Your task to perform on an android device: open app "Google Chat" Image 0: 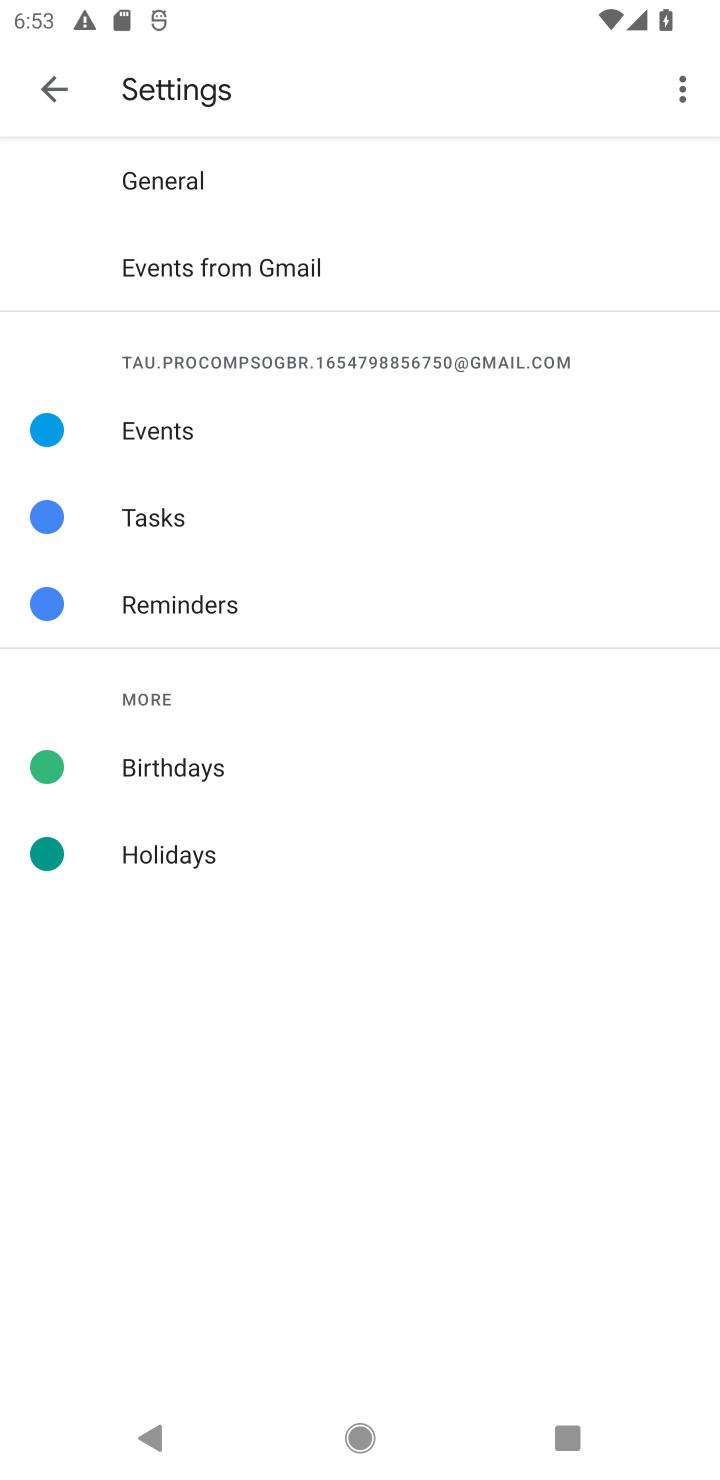
Step 0: press home button
Your task to perform on an android device: open app "Google Chat" Image 1: 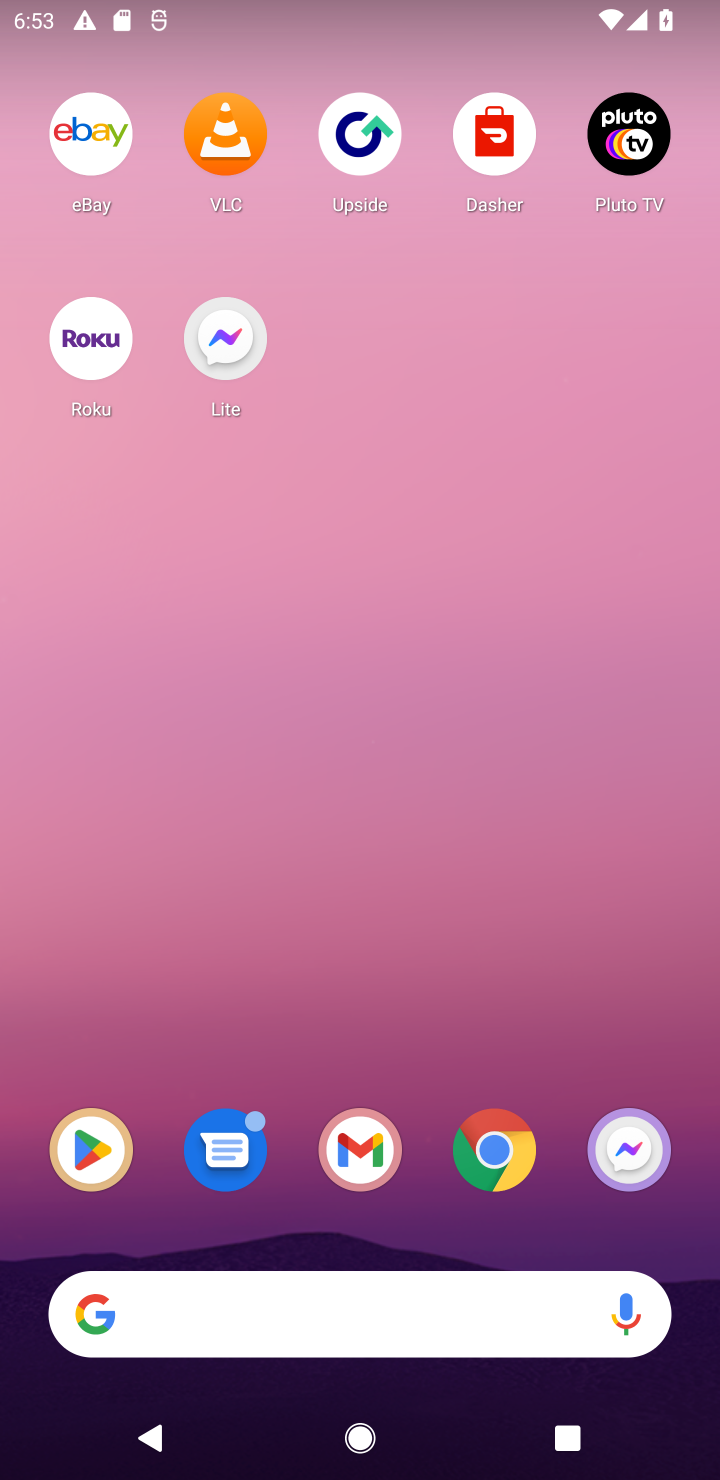
Step 1: drag from (411, 1254) to (483, 17)
Your task to perform on an android device: open app "Google Chat" Image 2: 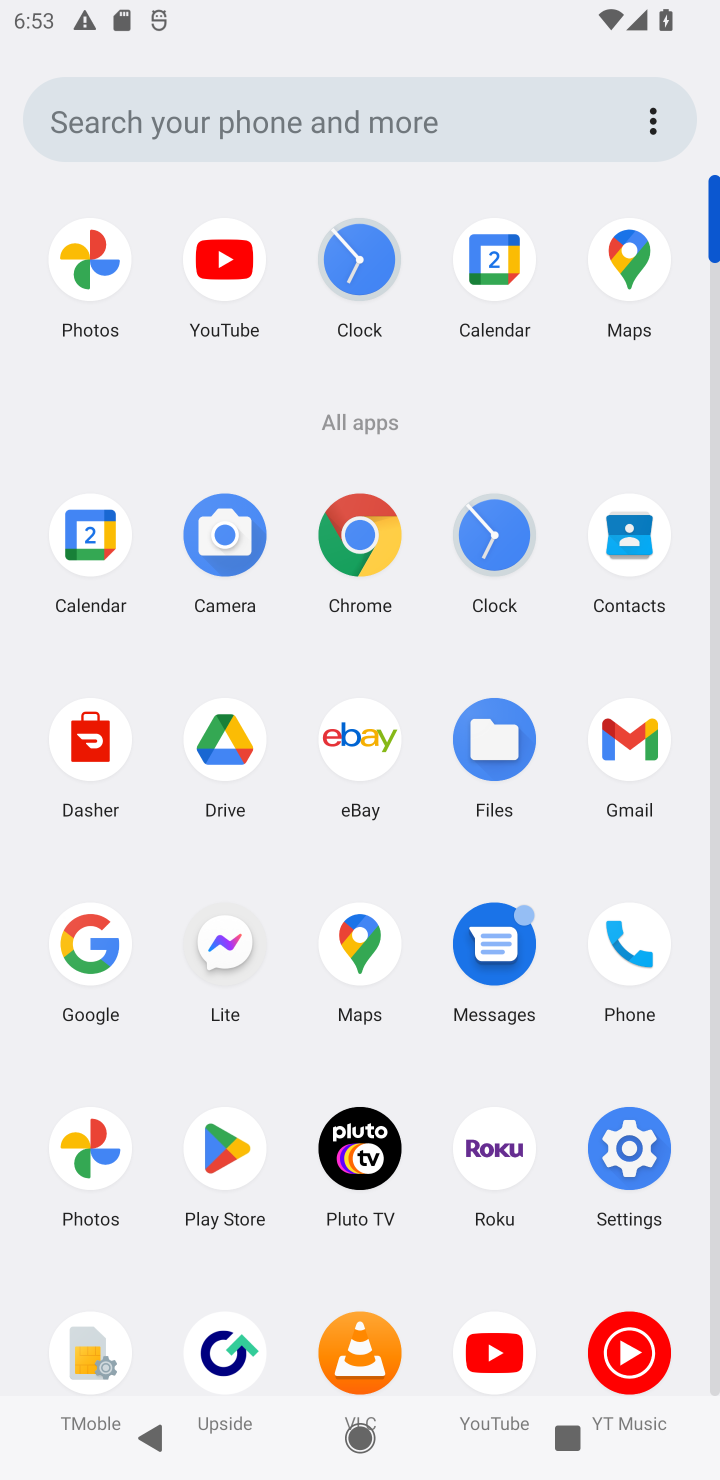
Step 2: click (237, 1159)
Your task to perform on an android device: open app "Google Chat" Image 3: 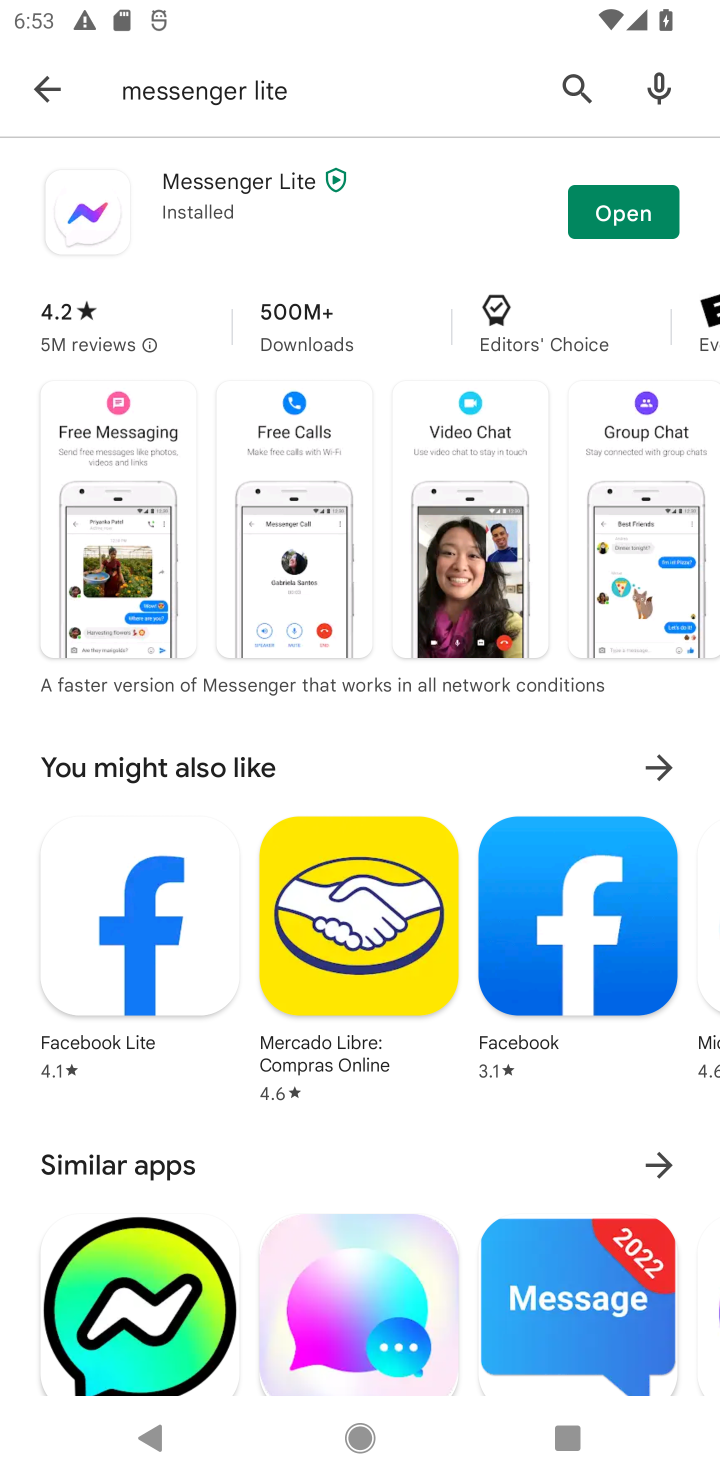
Step 3: click (66, 116)
Your task to perform on an android device: open app "Google Chat" Image 4: 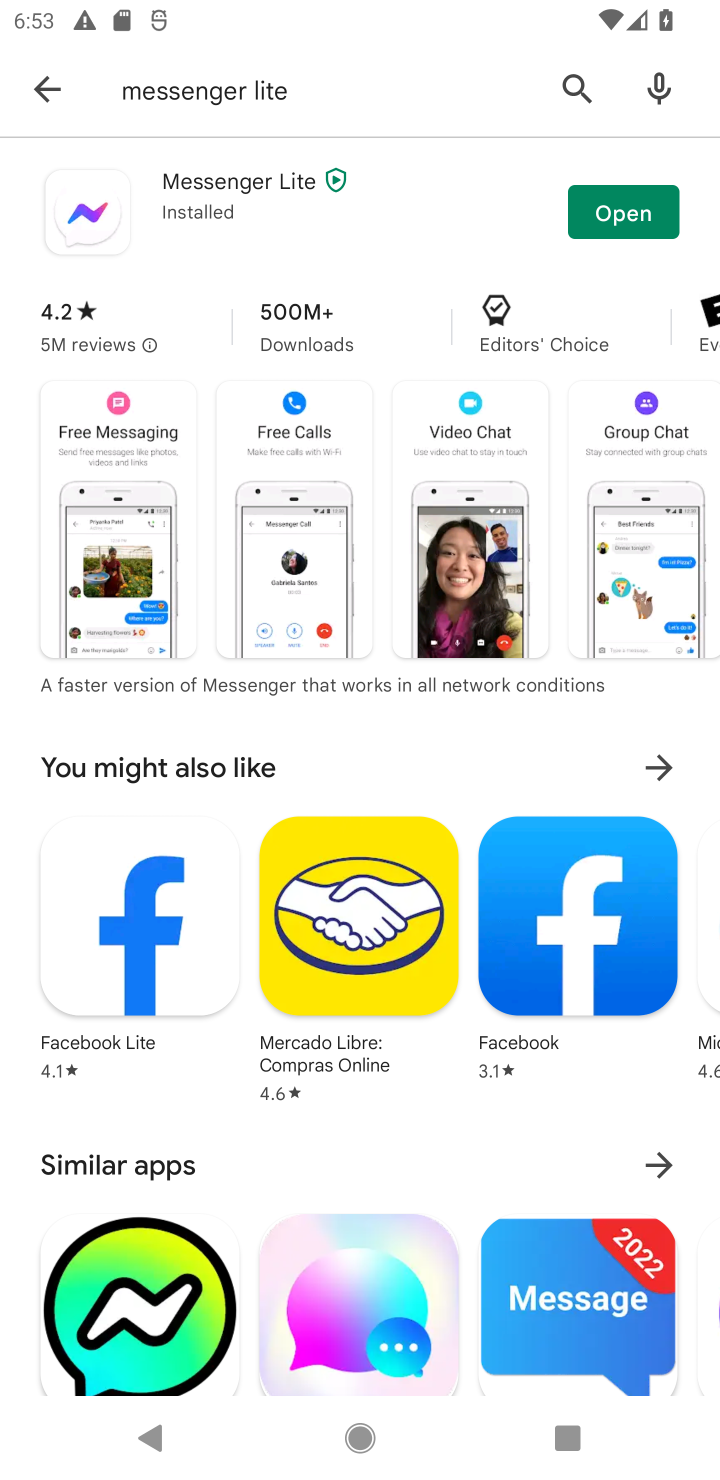
Step 4: click (10, 73)
Your task to perform on an android device: open app "Google Chat" Image 5: 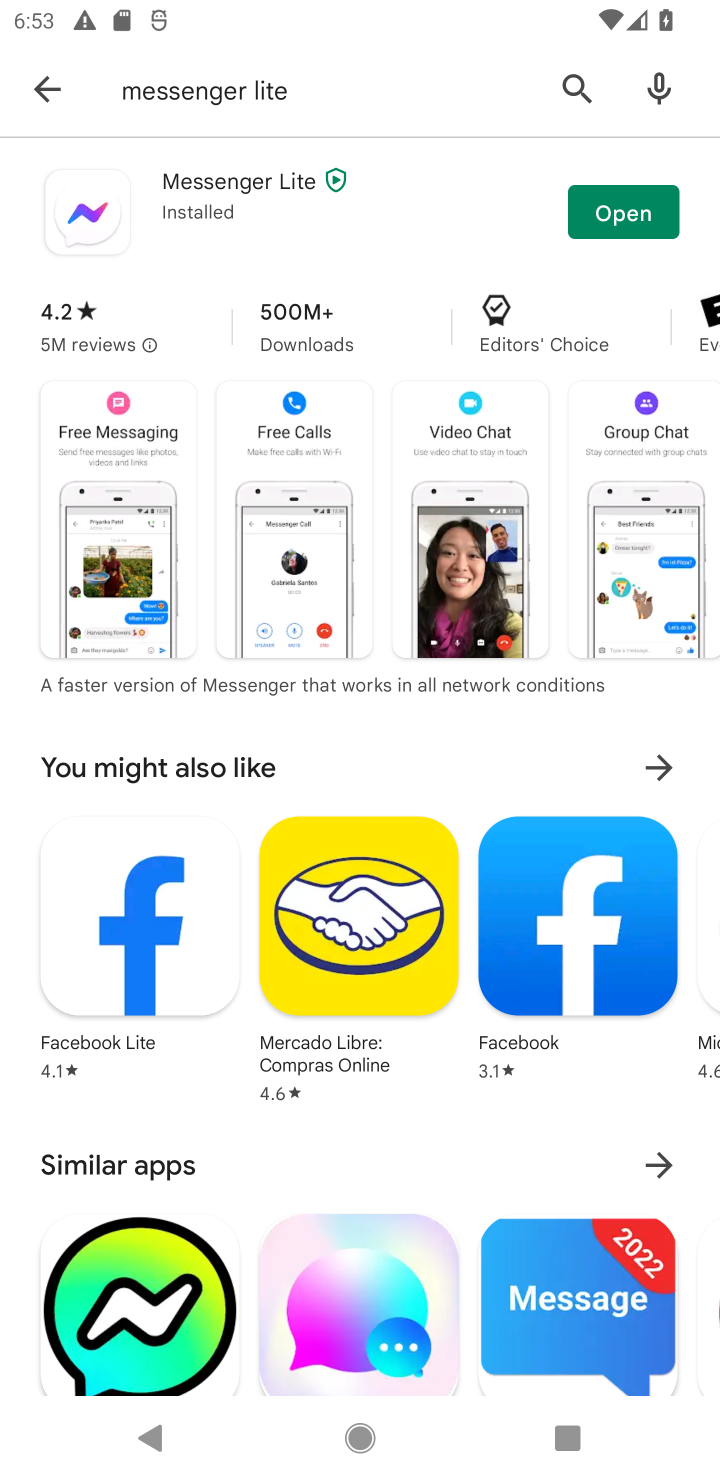
Step 5: click (47, 96)
Your task to perform on an android device: open app "Google Chat" Image 6: 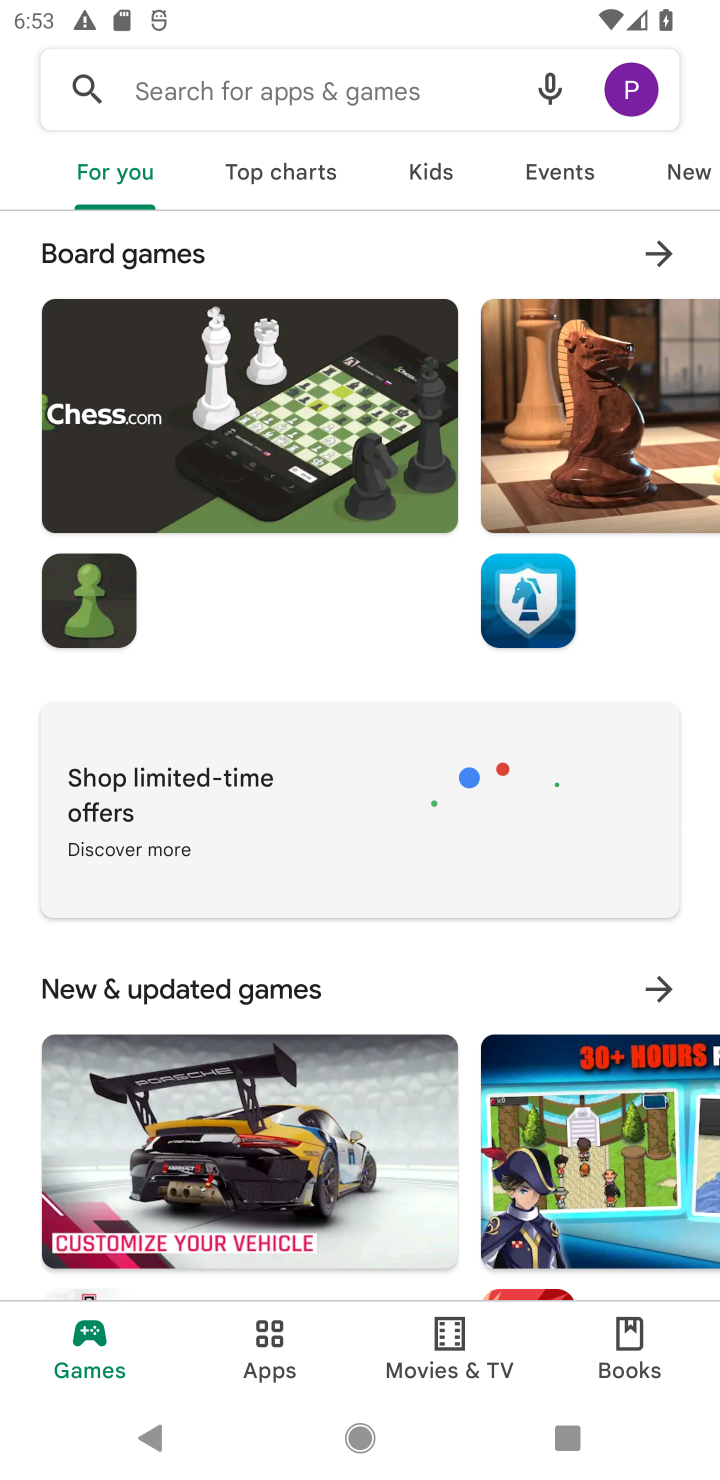
Step 6: click (206, 102)
Your task to perform on an android device: open app "Google Chat" Image 7: 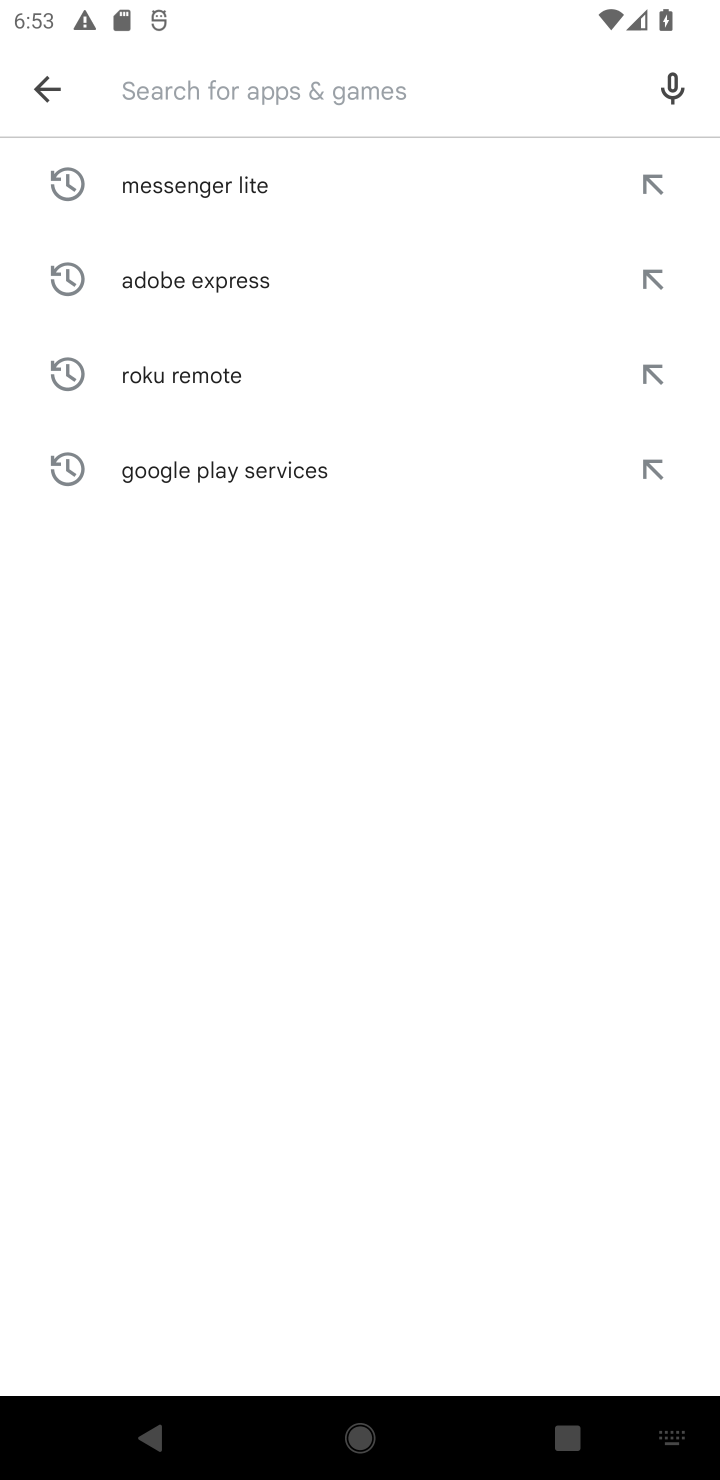
Step 7: type "Google Chat"
Your task to perform on an android device: open app "Google Chat" Image 8: 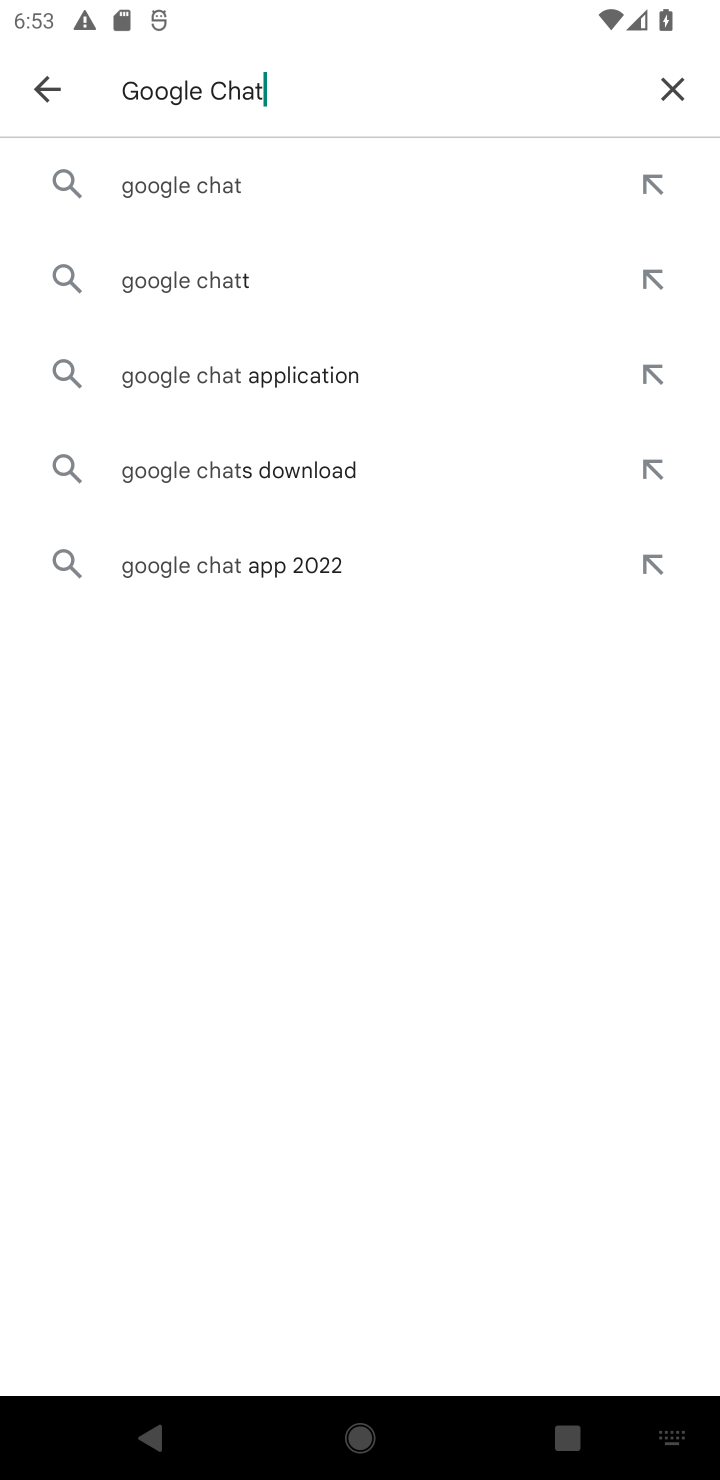
Step 8: click (233, 181)
Your task to perform on an android device: open app "Google Chat" Image 9: 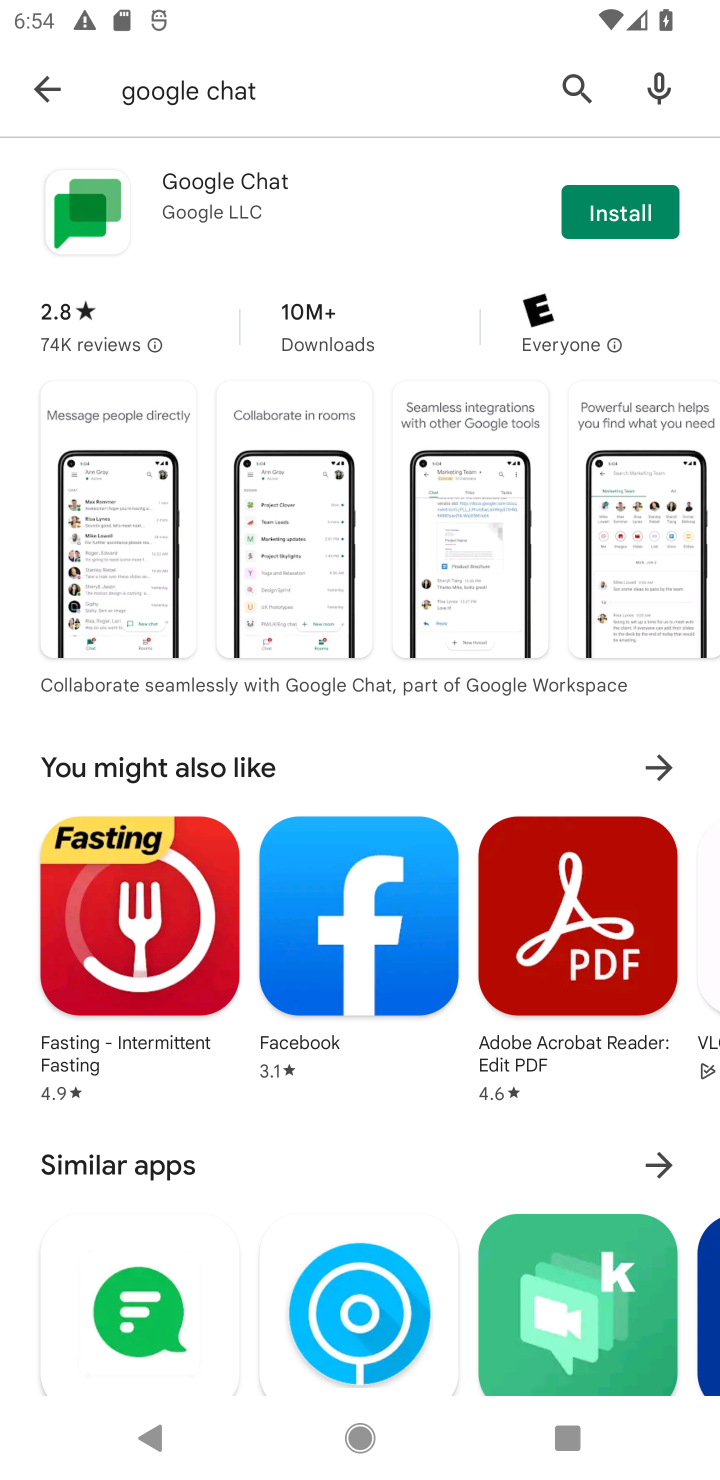
Step 9: click (648, 210)
Your task to perform on an android device: open app "Google Chat" Image 10: 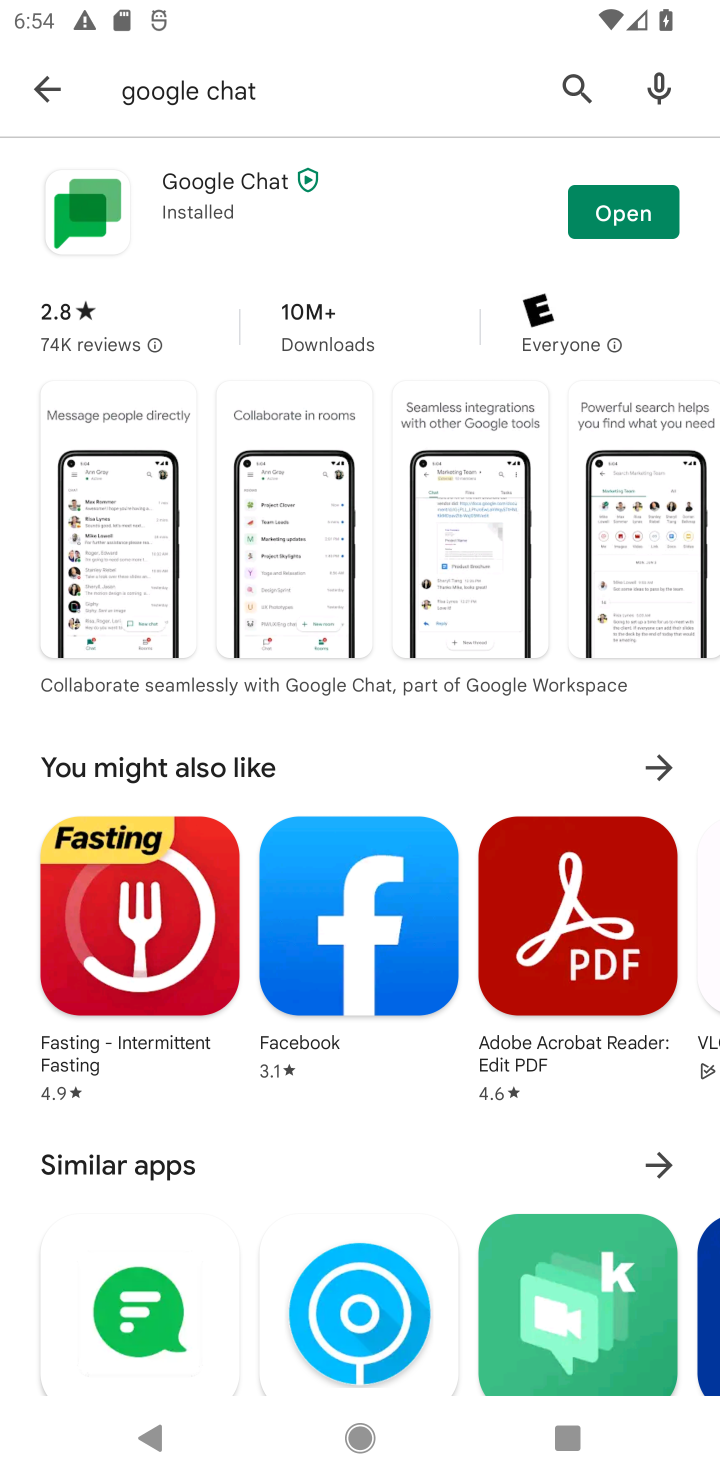
Step 10: click (619, 197)
Your task to perform on an android device: open app "Google Chat" Image 11: 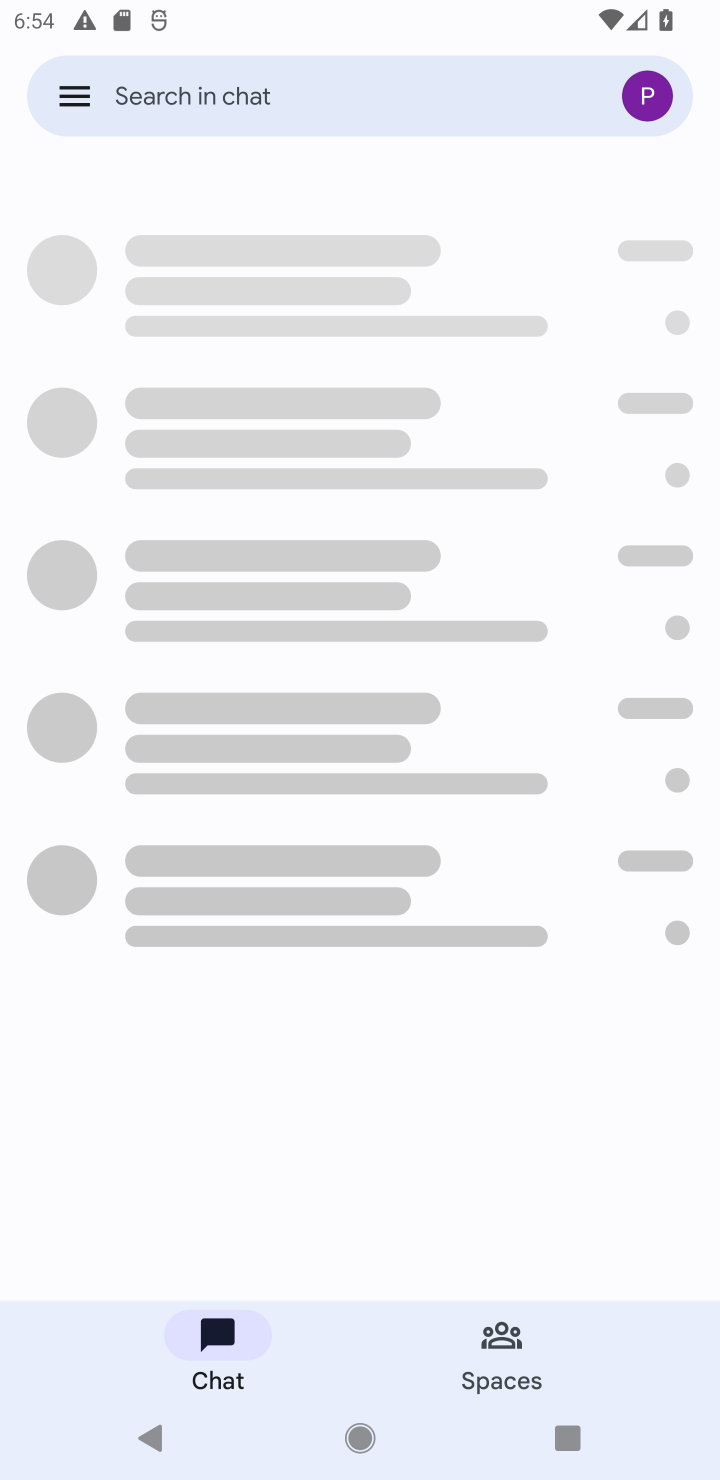
Step 11: task complete